Your task to perform on an android device: Go to calendar. Show me events next week Image 0: 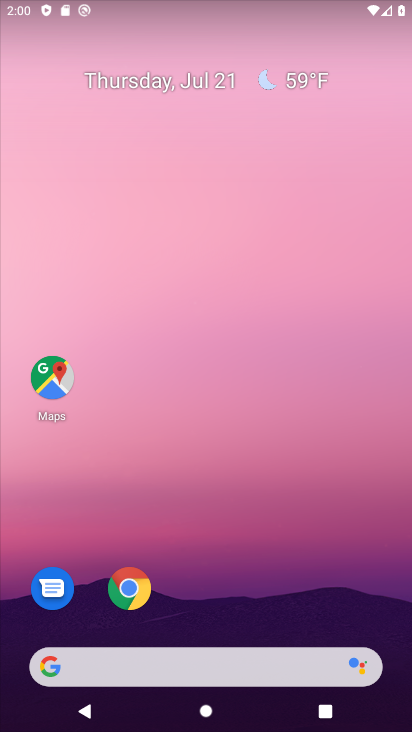
Step 0: drag from (399, 697) to (329, 304)
Your task to perform on an android device: Go to calendar. Show me events next week Image 1: 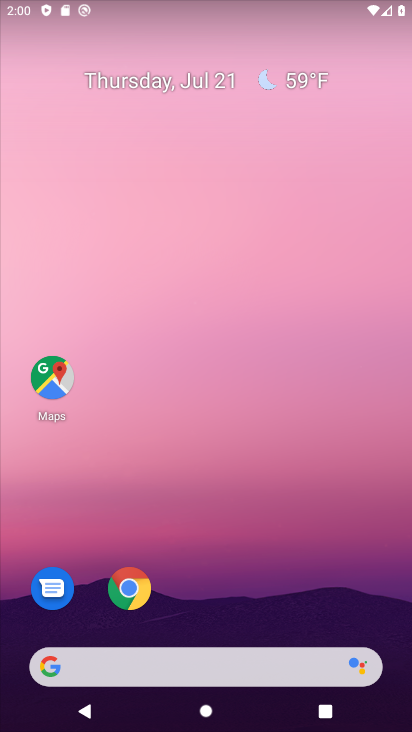
Step 1: drag from (387, 706) to (352, 149)
Your task to perform on an android device: Go to calendar. Show me events next week Image 2: 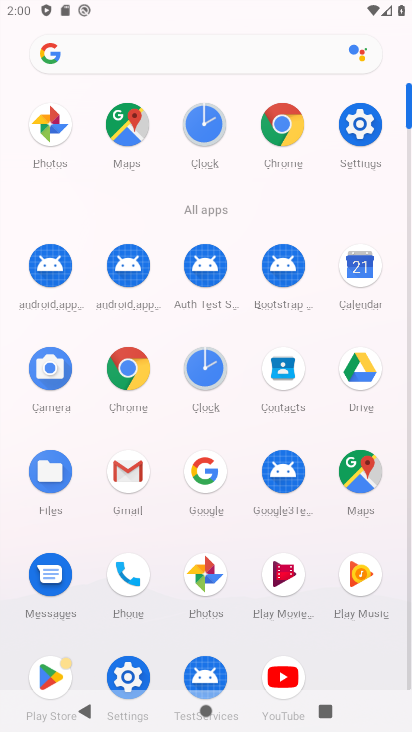
Step 2: click (349, 265)
Your task to perform on an android device: Go to calendar. Show me events next week Image 3: 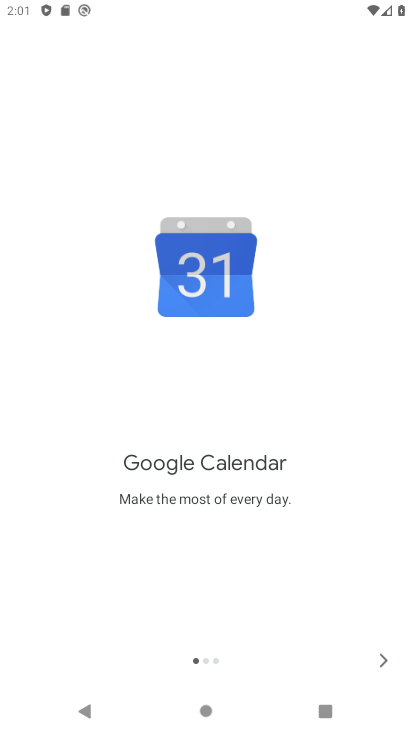
Step 3: click (377, 653)
Your task to perform on an android device: Go to calendar. Show me events next week Image 4: 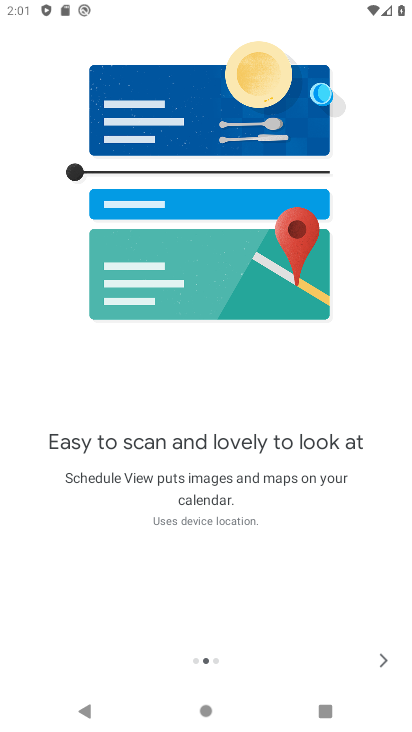
Step 4: click (373, 650)
Your task to perform on an android device: Go to calendar. Show me events next week Image 5: 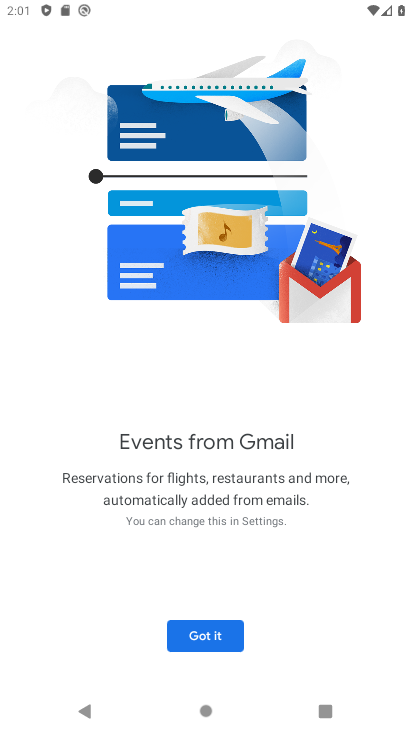
Step 5: click (228, 635)
Your task to perform on an android device: Go to calendar. Show me events next week Image 6: 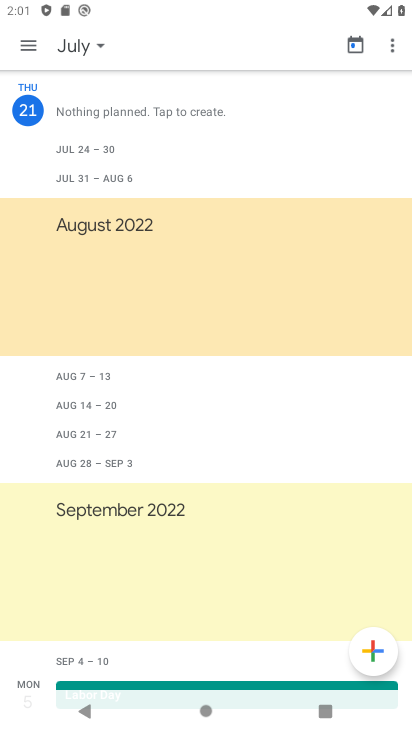
Step 6: click (99, 46)
Your task to perform on an android device: Go to calendar. Show me events next week Image 7: 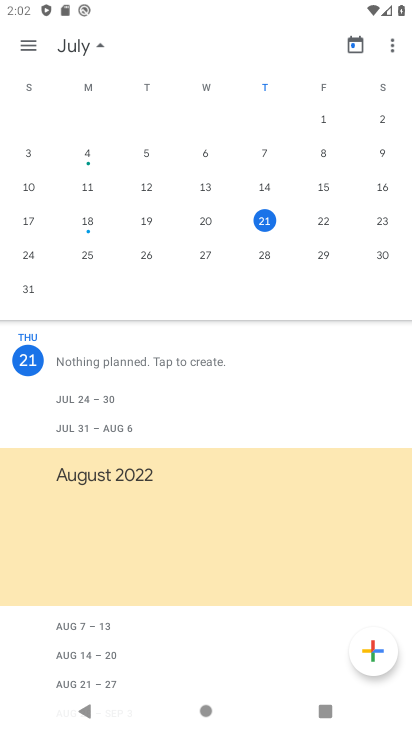
Step 7: click (22, 46)
Your task to perform on an android device: Go to calendar. Show me events next week Image 8: 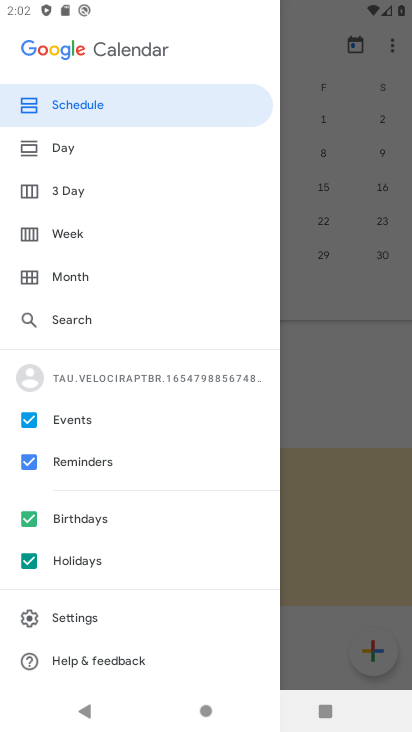
Step 8: click (327, 340)
Your task to perform on an android device: Go to calendar. Show me events next week Image 9: 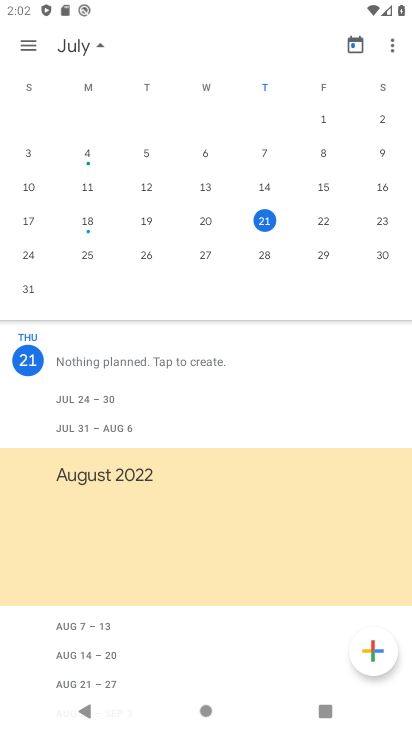
Step 9: task complete